Your task to perform on an android device: turn notification dots off Image 0: 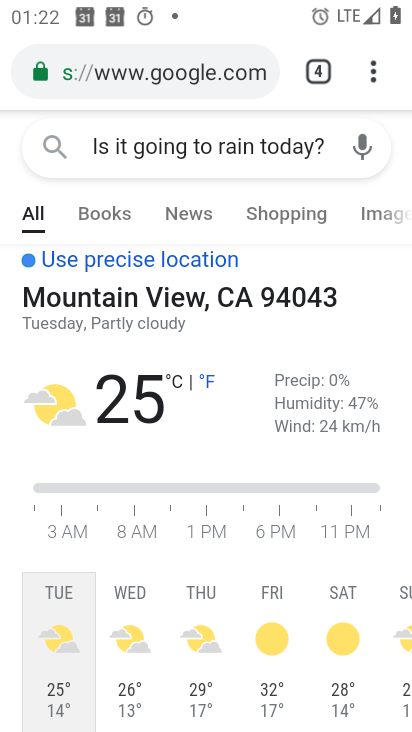
Step 0: press home button
Your task to perform on an android device: turn notification dots off Image 1: 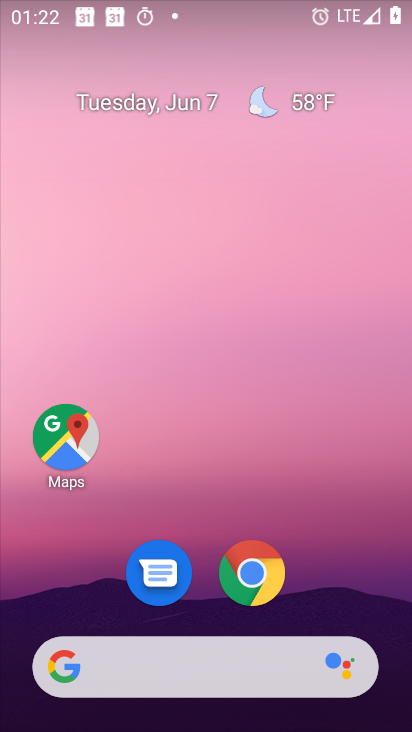
Step 1: drag from (306, 561) to (351, 84)
Your task to perform on an android device: turn notification dots off Image 2: 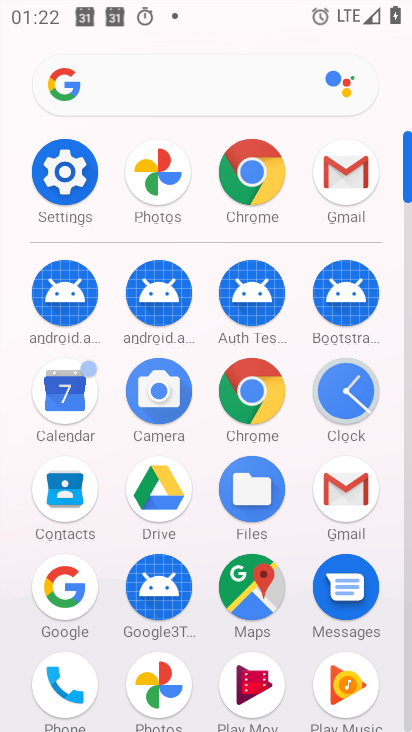
Step 2: click (57, 175)
Your task to perform on an android device: turn notification dots off Image 3: 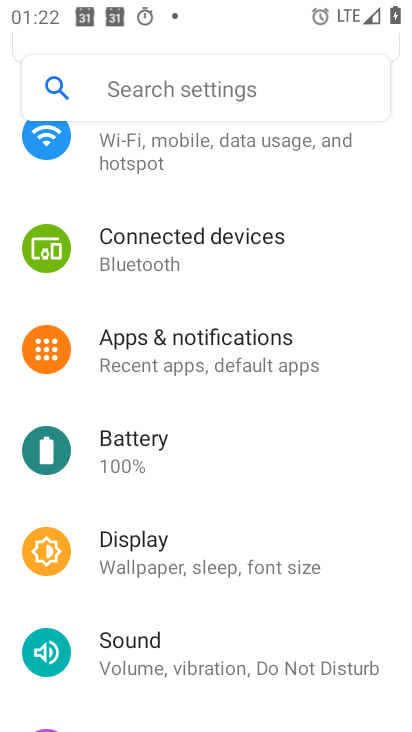
Step 3: drag from (285, 630) to (152, 637)
Your task to perform on an android device: turn notification dots off Image 4: 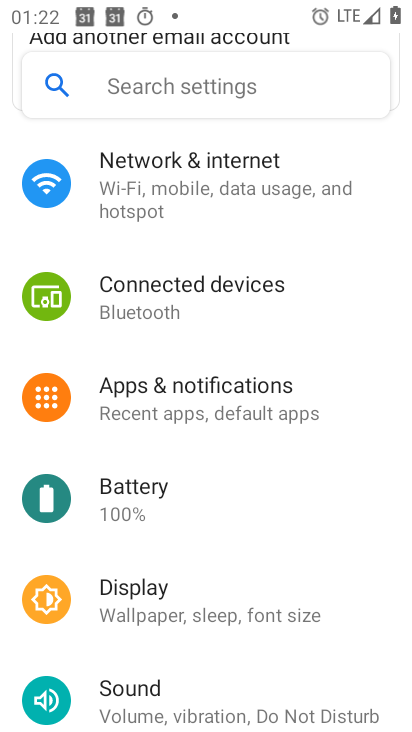
Step 4: click (175, 412)
Your task to perform on an android device: turn notification dots off Image 5: 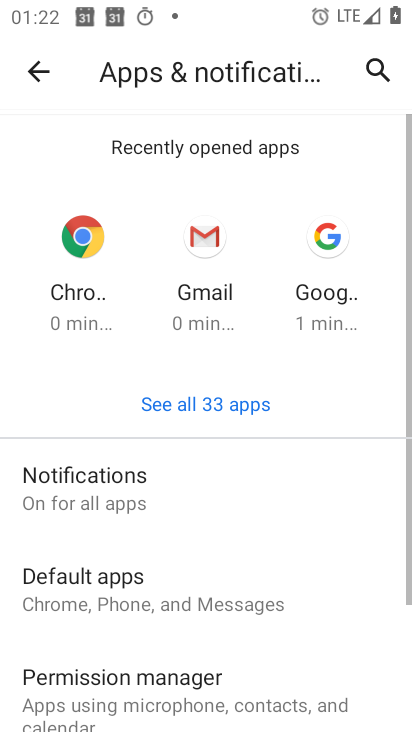
Step 5: click (130, 489)
Your task to perform on an android device: turn notification dots off Image 6: 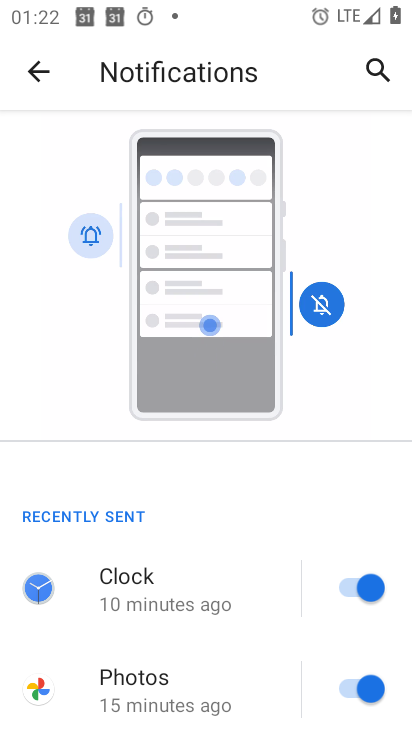
Step 6: drag from (237, 638) to (285, 315)
Your task to perform on an android device: turn notification dots off Image 7: 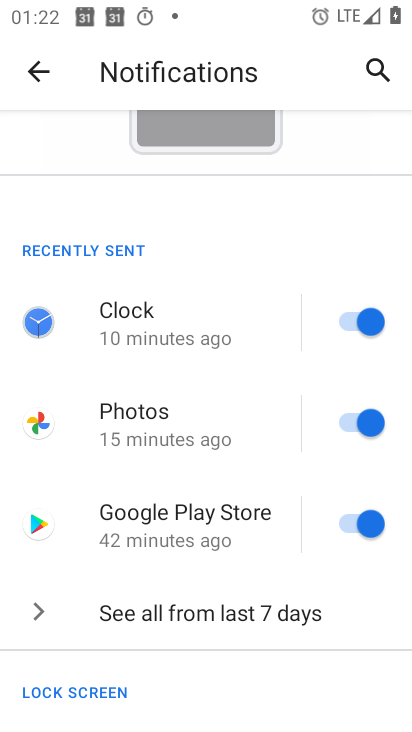
Step 7: drag from (223, 664) to (277, 358)
Your task to perform on an android device: turn notification dots off Image 8: 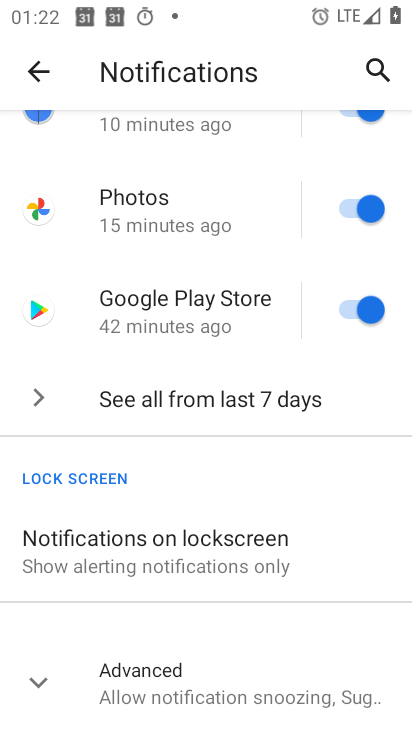
Step 8: click (171, 680)
Your task to perform on an android device: turn notification dots off Image 9: 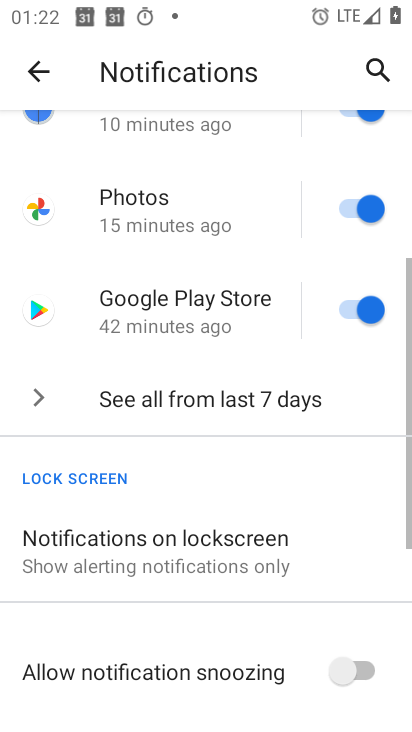
Step 9: drag from (234, 656) to (375, 230)
Your task to perform on an android device: turn notification dots off Image 10: 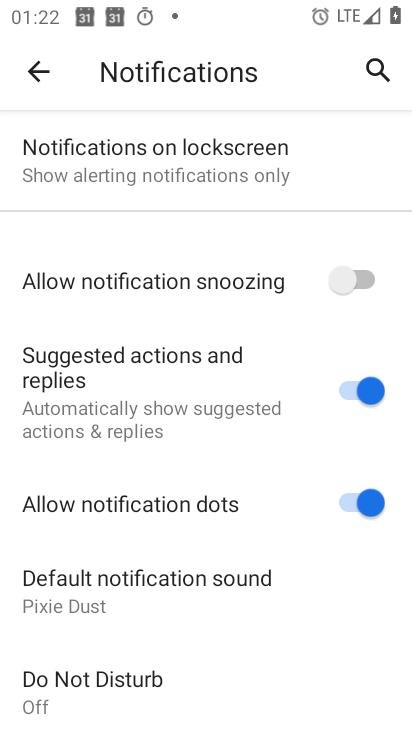
Step 10: drag from (225, 651) to (312, 284)
Your task to perform on an android device: turn notification dots off Image 11: 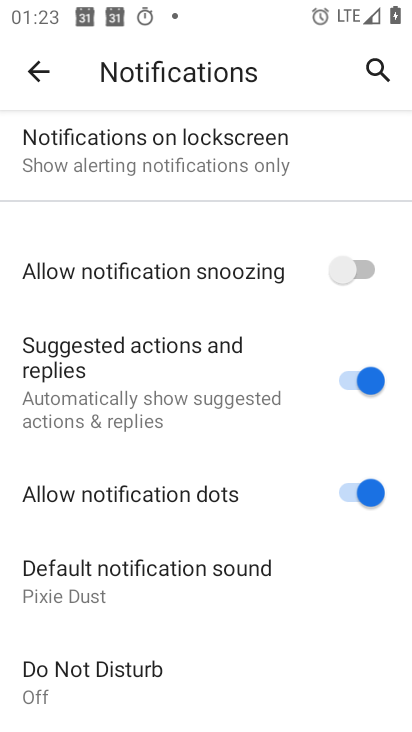
Step 11: click (346, 492)
Your task to perform on an android device: turn notification dots off Image 12: 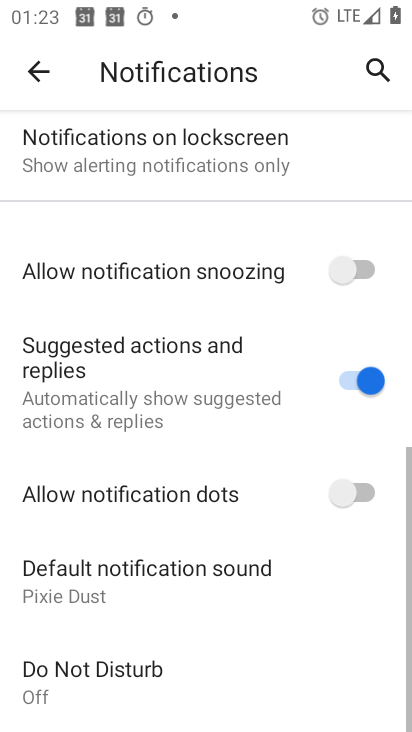
Step 12: task complete